Your task to perform on an android device: Open the map Image 0: 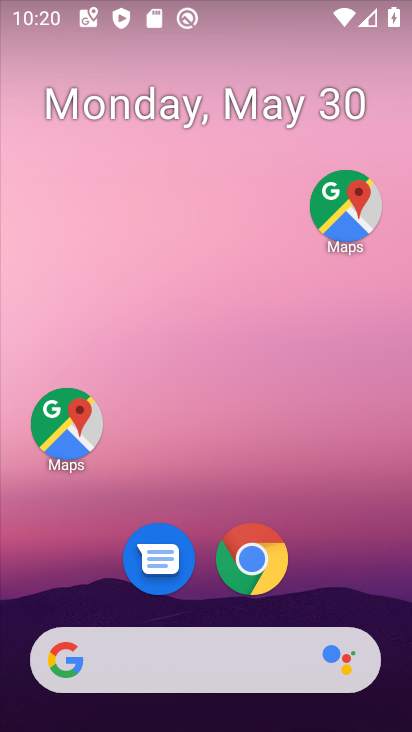
Step 0: click (64, 436)
Your task to perform on an android device: Open the map Image 1: 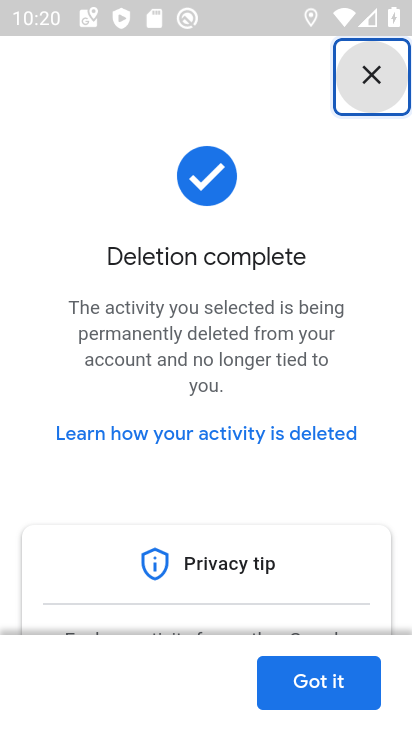
Step 1: click (338, 676)
Your task to perform on an android device: Open the map Image 2: 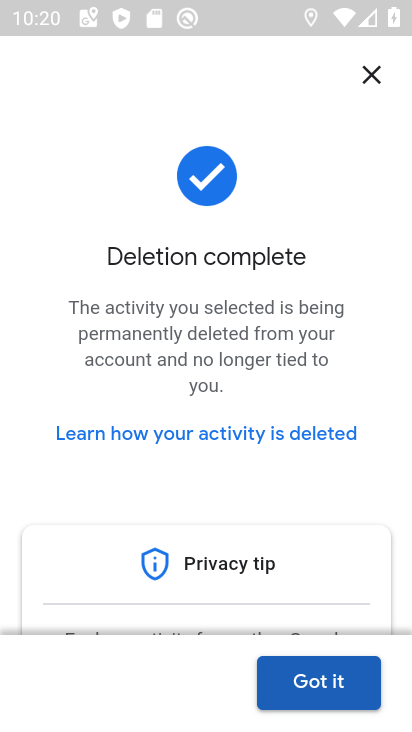
Step 2: click (353, 689)
Your task to perform on an android device: Open the map Image 3: 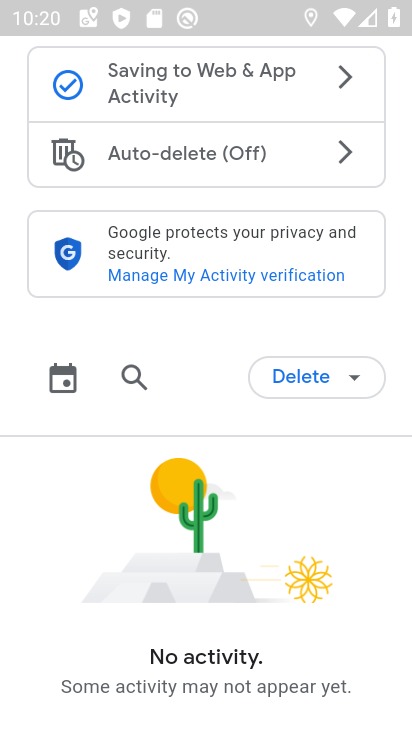
Step 3: task complete